Your task to perform on an android device: Go to eBay Image 0: 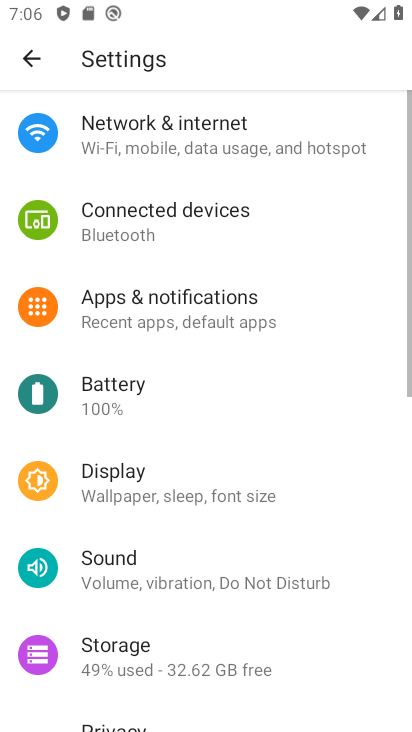
Step 0: press home button
Your task to perform on an android device: Go to eBay Image 1: 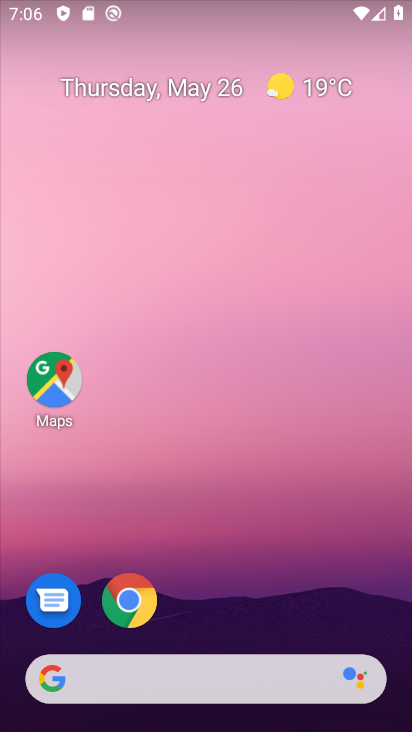
Step 1: drag from (231, 609) to (203, 159)
Your task to perform on an android device: Go to eBay Image 2: 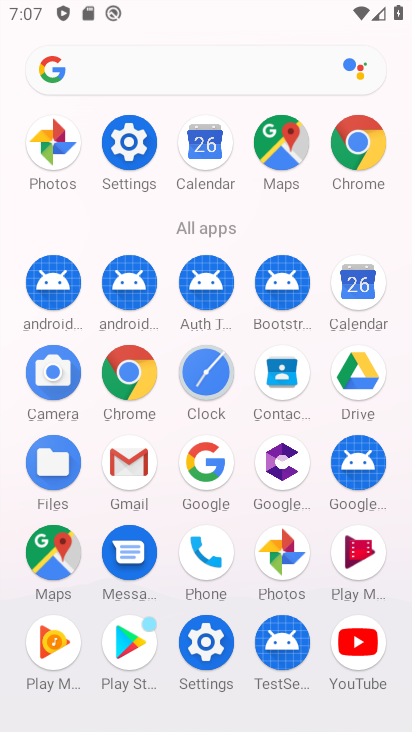
Step 2: click (125, 359)
Your task to perform on an android device: Go to eBay Image 3: 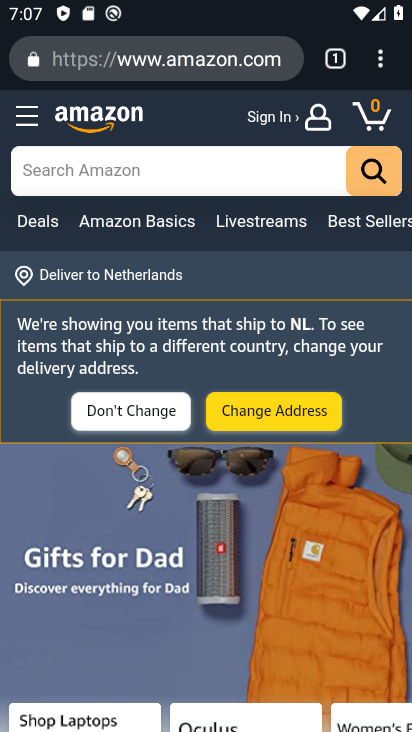
Step 3: click (154, 54)
Your task to perform on an android device: Go to eBay Image 4: 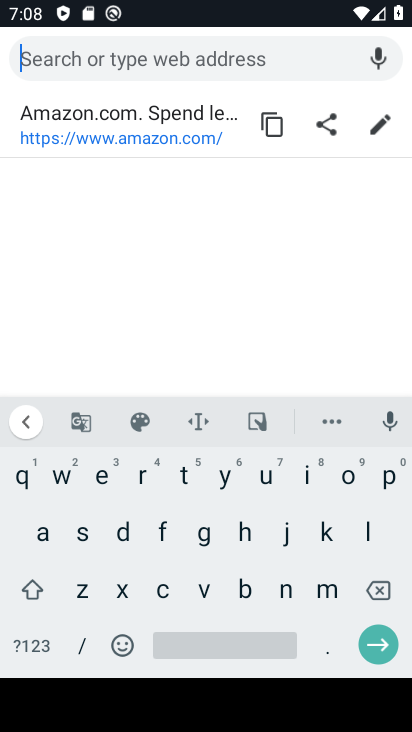
Step 4: click (94, 474)
Your task to perform on an android device: Go to eBay Image 5: 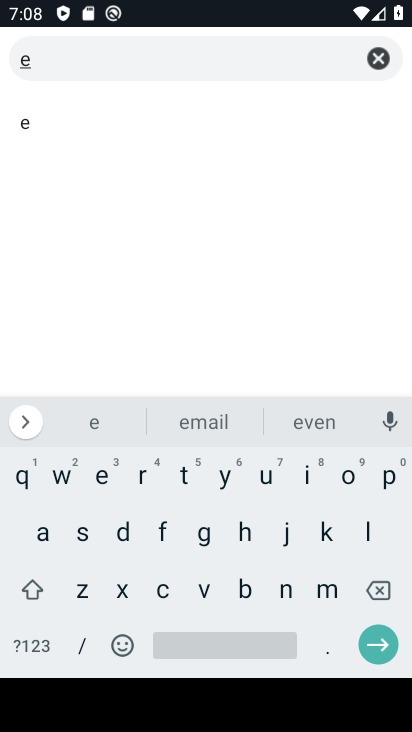
Step 5: click (246, 599)
Your task to perform on an android device: Go to eBay Image 6: 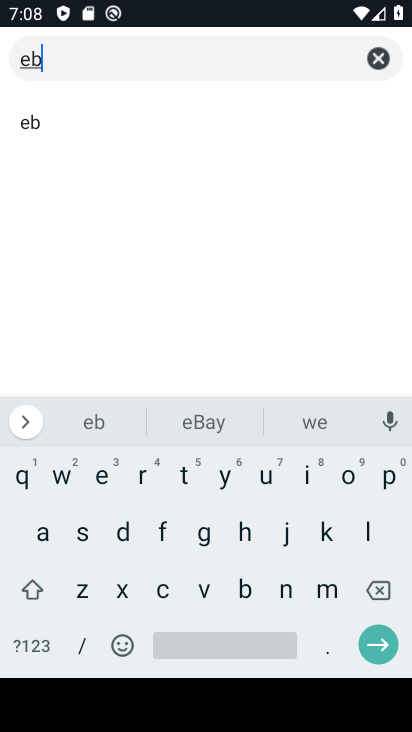
Step 6: click (206, 421)
Your task to perform on an android device: Go to eBay Image 7: 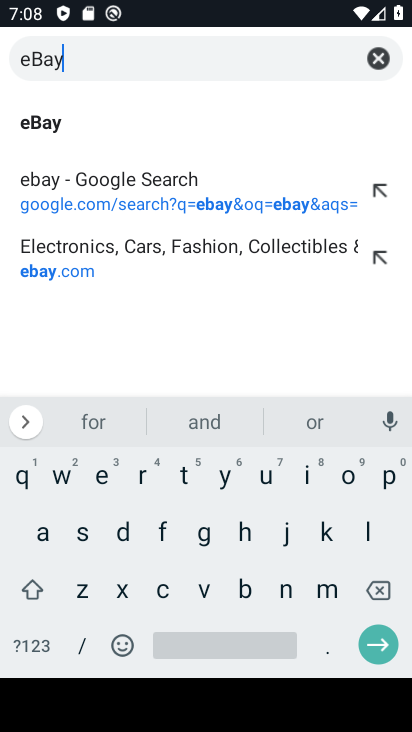
Step 7: click (178, 185)
Your task to perform on an android device: Go to eBay Image 8: 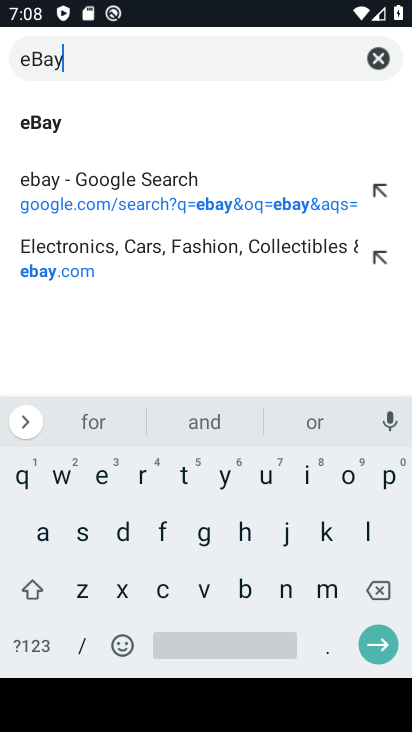
Step 8: click (61, 116)
Your task to perform on an android device: Go to eBay Image 9: 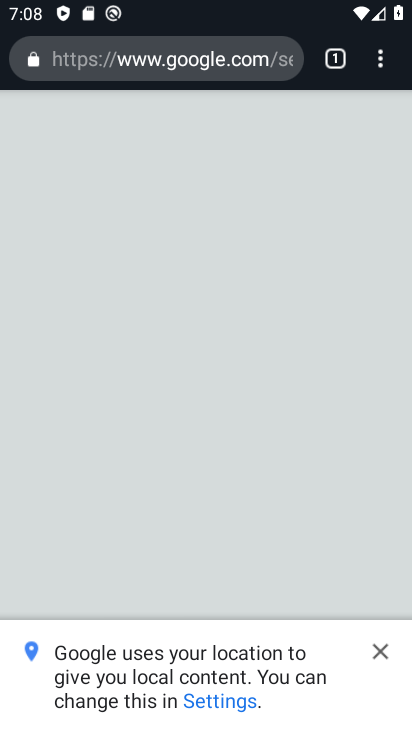
Step 9: click (384, 655)
Your task to perform on an android device: Go to eBay Image 10: 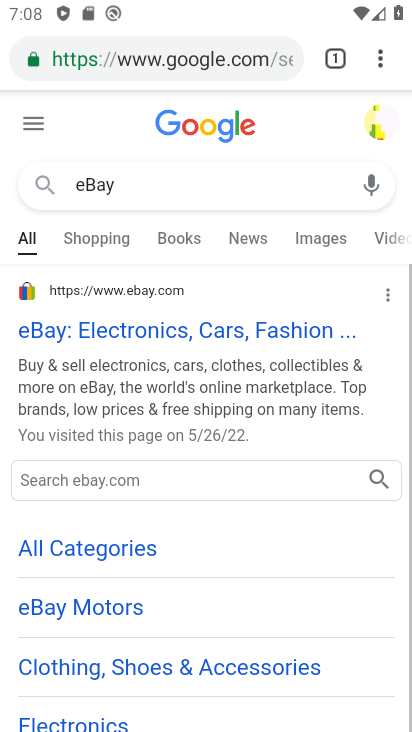
Step 10: click (128, 332)
Your task to perform on an android device: Go to eBay Image 11: 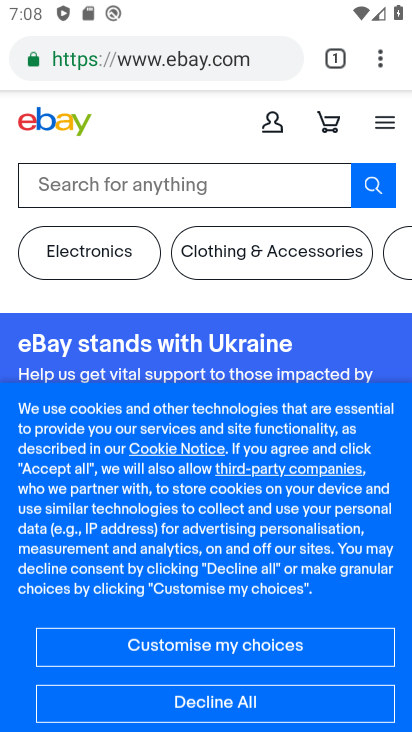
Step 11: task complete